Your task to perform on an android device: change the clock style Image 0: 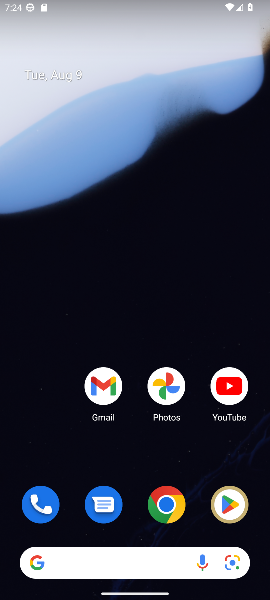
Step 0: drag from (212, 456) to (208, 44)
Your task to perform on an android device: change the clock style Image 1: 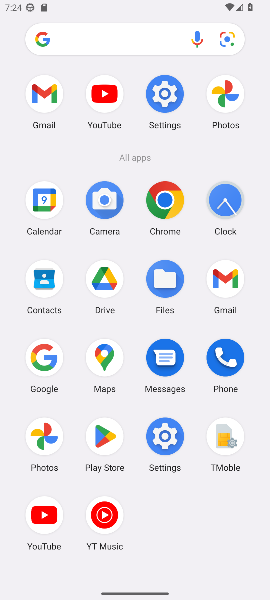
Step 1: click (227, 213)
Your task to perform on an android device: change the clock style Image 2: 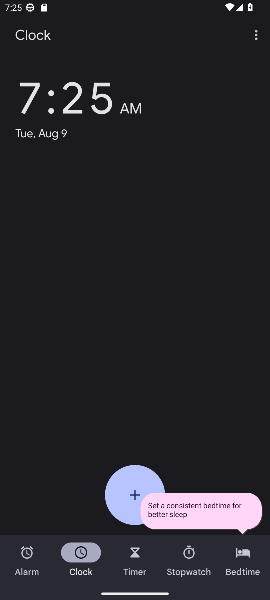
Step 2: click (253, 39)
Your task to perform on an android device: change the clock style Image 3: 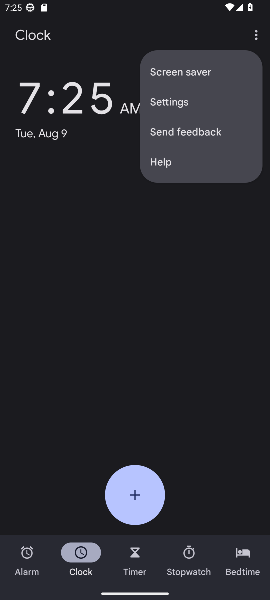
Step 3: click (181, 101)
Your task to perform on an android device: change the clock style Image 4: 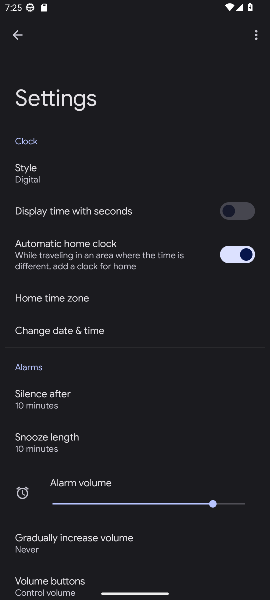
Step 4: click (73, 332)
Your task to perform on an android device: change the clock style Image 5: 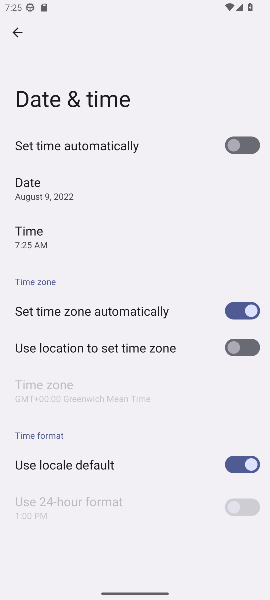
Step 5: press back button
Your task to perform on an android device: change the clock style Image 6: 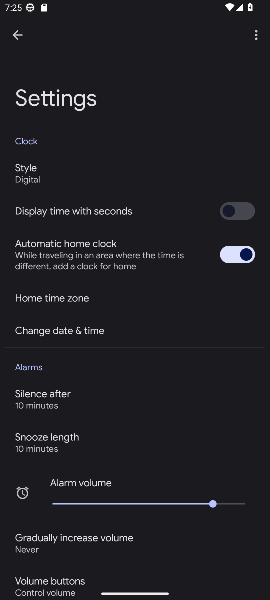
Step 6: click (28, 176)
Your task to perform on an android device: change the clock style Image 7: 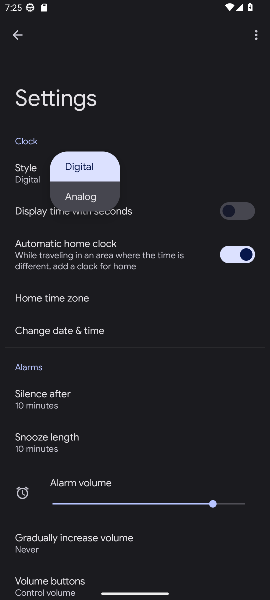
Step 7: click (72, 200)
Your task to perform on an android device: change the clock style Image 8: 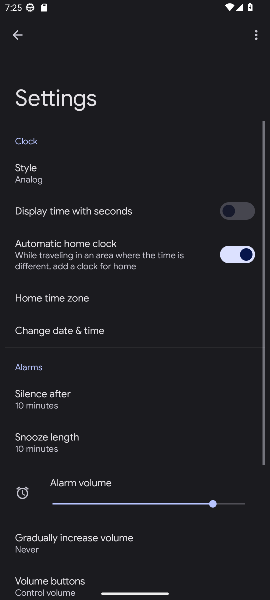
Step 8: task complete